Your task to perform on an android device: turn pop-ups on in chrome Image 0: 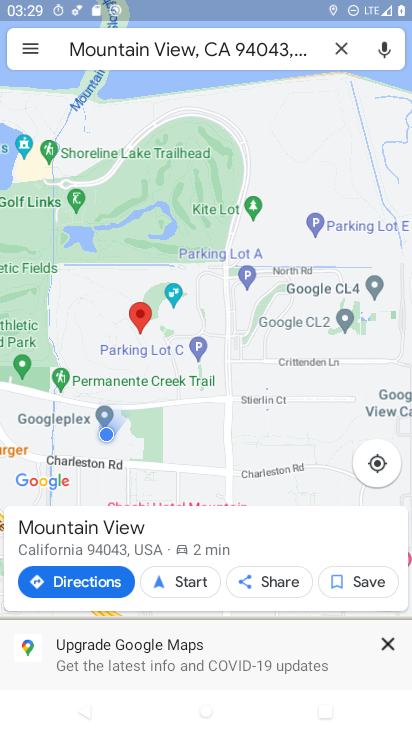
Step 0: press home button
Your task to perform on an android device: turn pop-ups on in chrome Image 1: 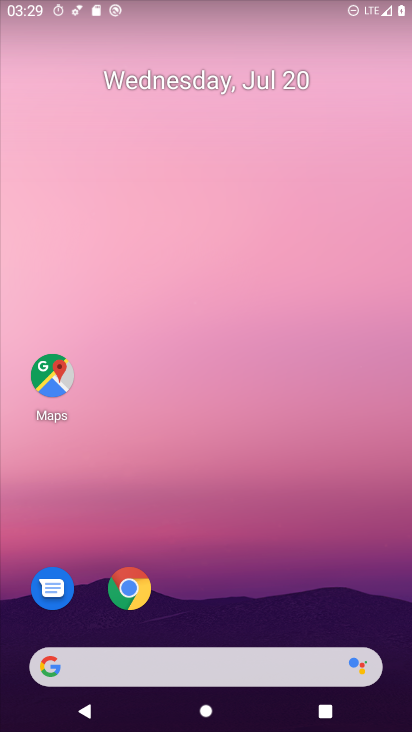
Step 1: click (133, 589)
Your task to perform on an android device: turn pop-ups on in chrome Image 2: 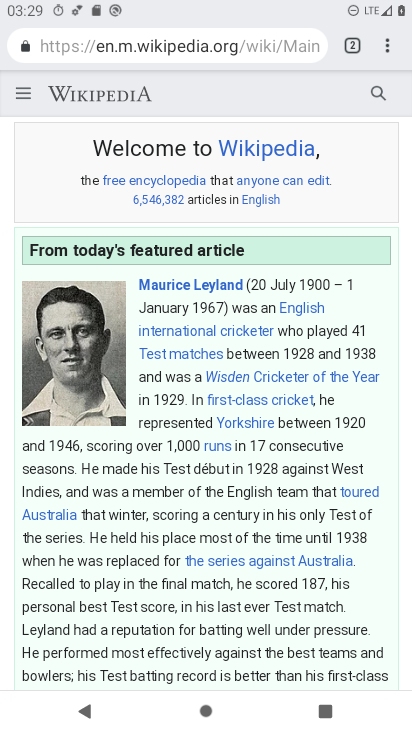
Step 2: click (385, 51)
Your task to perform on an android device: turn pop-ups on in chrome Image 3: 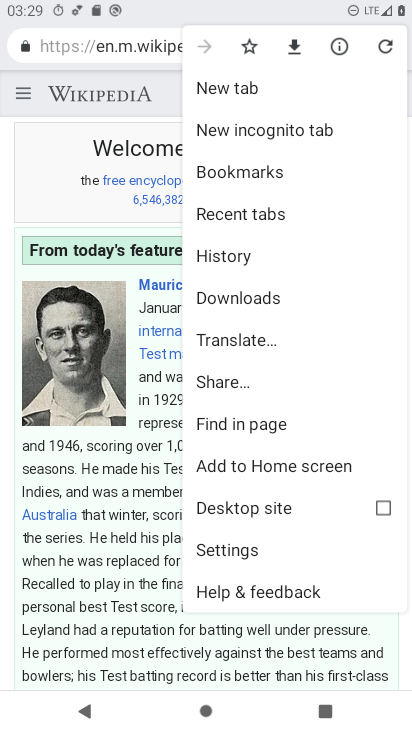
Step 3: click (211, 536)
Your task to perform on an android device: turn pop-ups on in chrome Image 4: 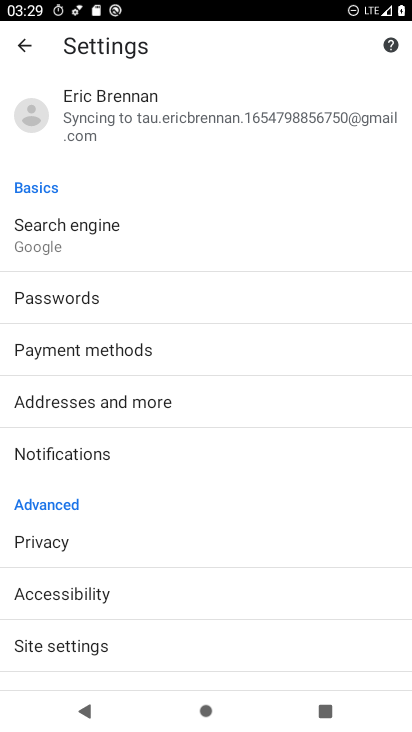
Step 4: drag from (211, 536) to (130, 137)
Your task to perform on an android device: turn pop-ups on in chrome Image 5: 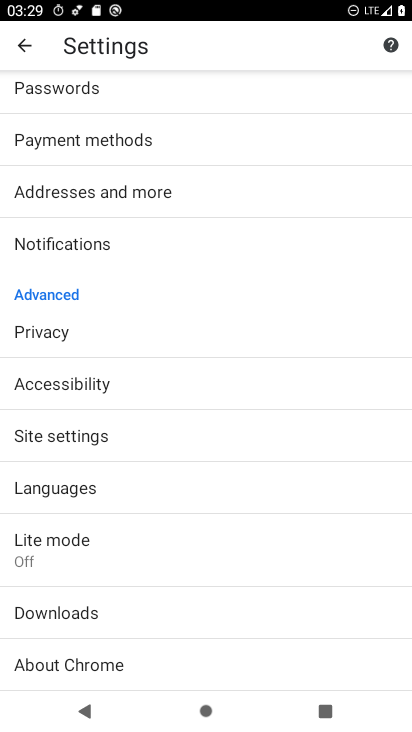
Step 5: click (55, 419)
Your task to perform on an android device: turn pop-ups on in chrome Image 6: 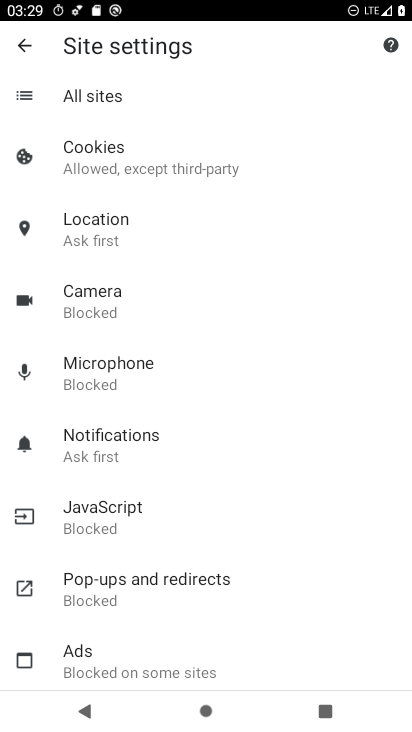
Step 6: click (145, 616)
Your task to perform on an android device: turn pop-ups on in chrome Image 7: 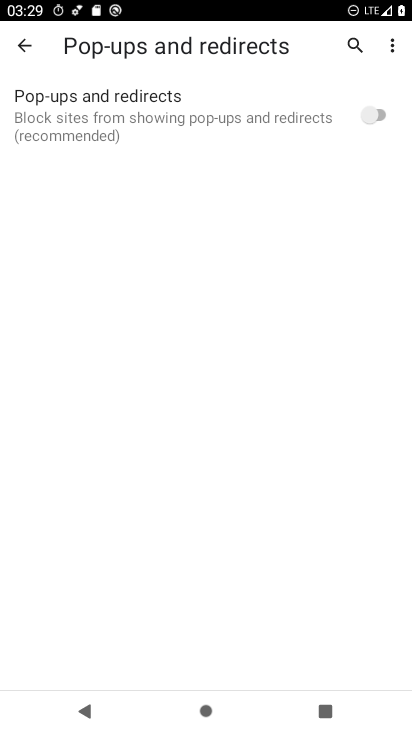
Step 7: click (371, 118)
Your task to perform on an android device: turn pop-ups on in chrome Image 8: 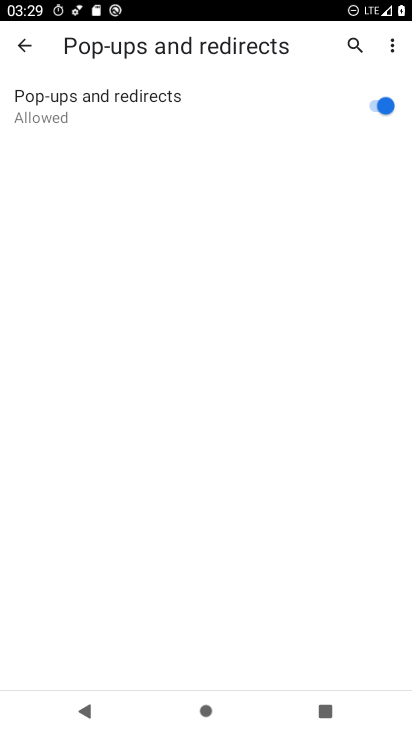
Step 8: task complete